Your task to perform on an android device: visit the assistant section in the google photos Image 0: 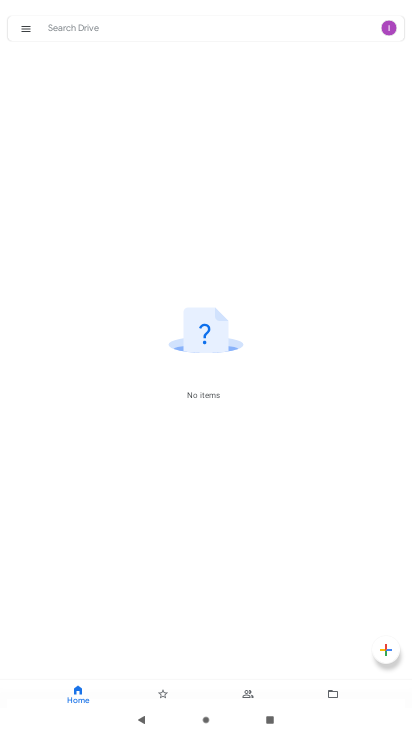
Step 0: press home button
Your task to perform on an android device: visit the assistant section in the google photos Image 1: 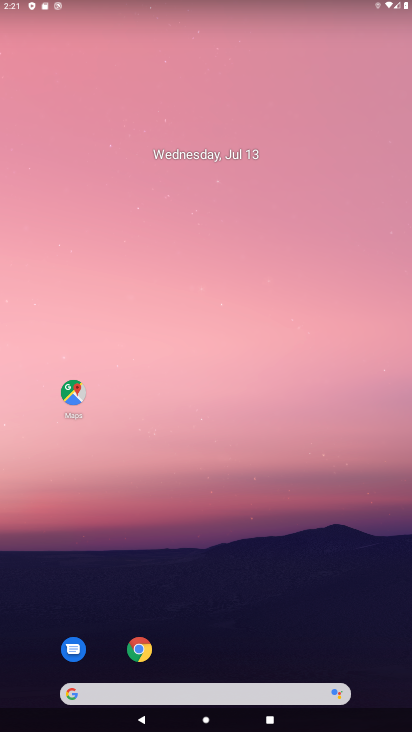
Step 1: drag from (230, 535) to (196, 167)
Your task to perform on an android device: visit the assistant section in the google photos Image 2: 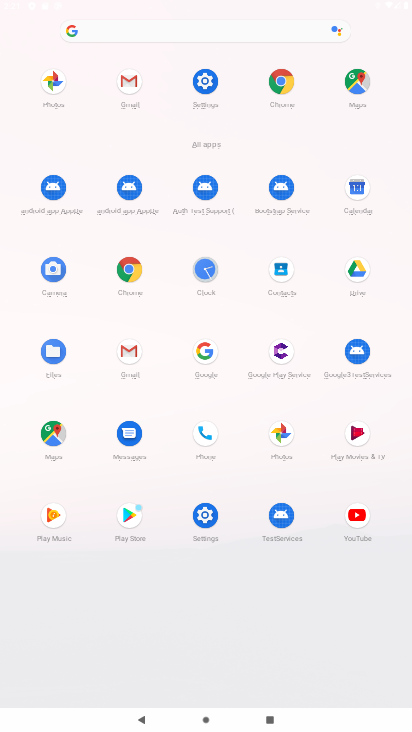
Step 2: click (47, 86)
Your task to perform on an android device: visit the assistant section in the google photos Image 3: 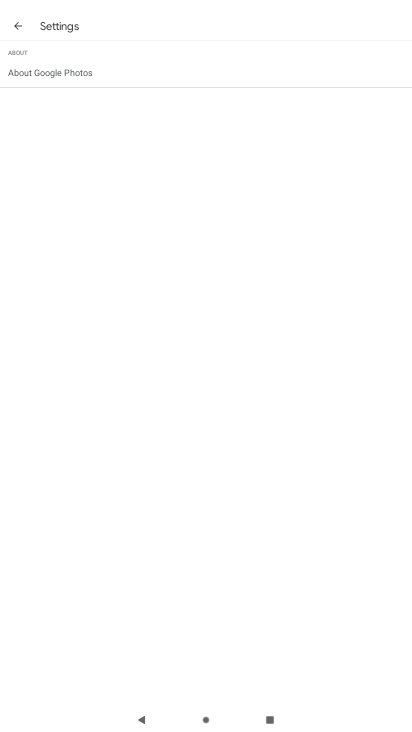
Step 3: click (13, 22)
Your task to perform on an android device: visit the assistant section in the google photos Image 4: 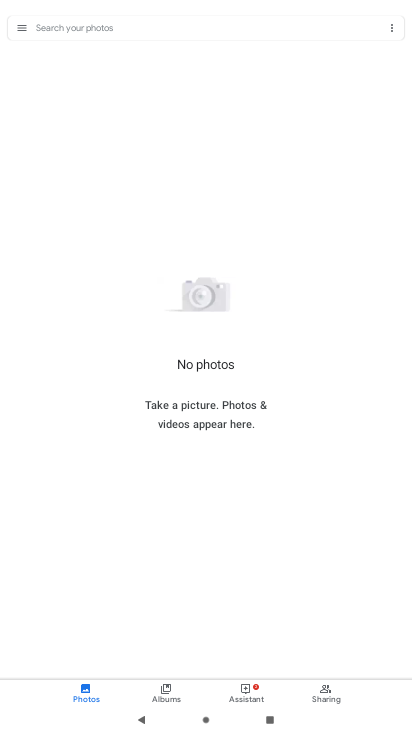
Step 4: click (240, 693)
Your task to perform on an android device: visit the assistant section in the google photos Image 5: 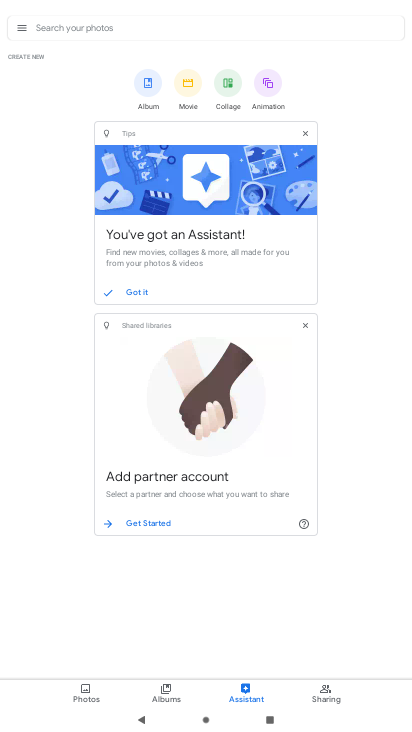
Step 5: click (192, 427)
Your task to perform on an android device: visit the assistant section in the google photos Image 6: 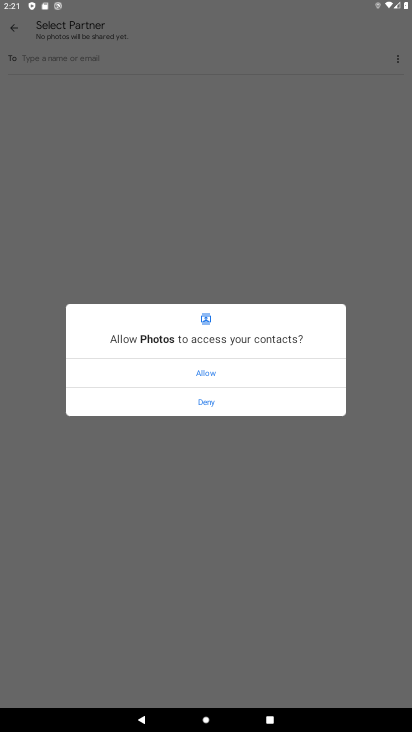
Step 6: task complete